Your task to perform on an android device: Go to accessibility settings Image 0: 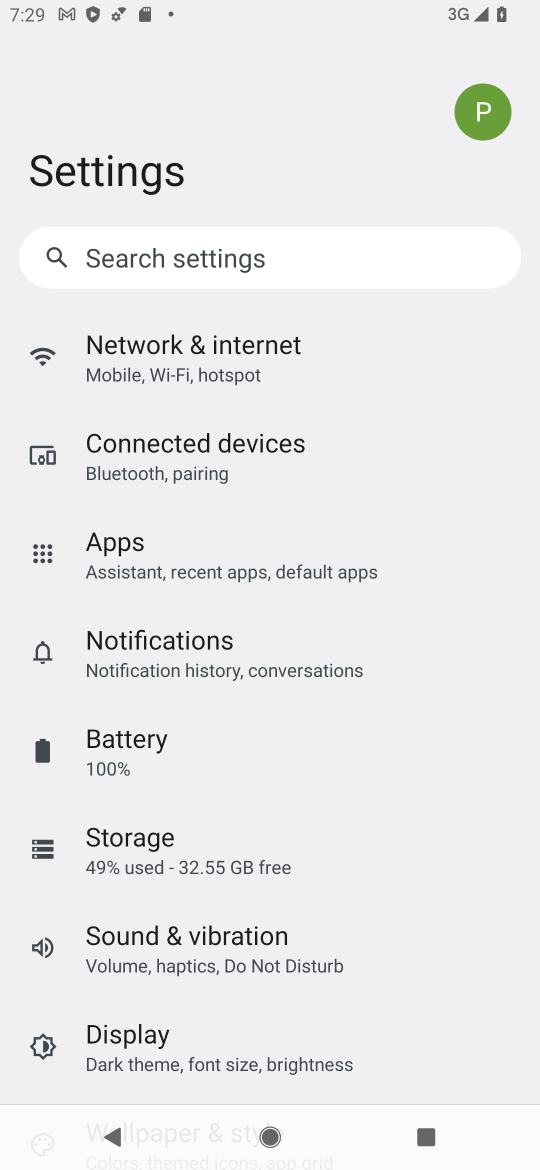
Step 0: drag from (168, 473) to (211, 509)
Your task to perform on an android device: Go to accessibility settings Image 1: 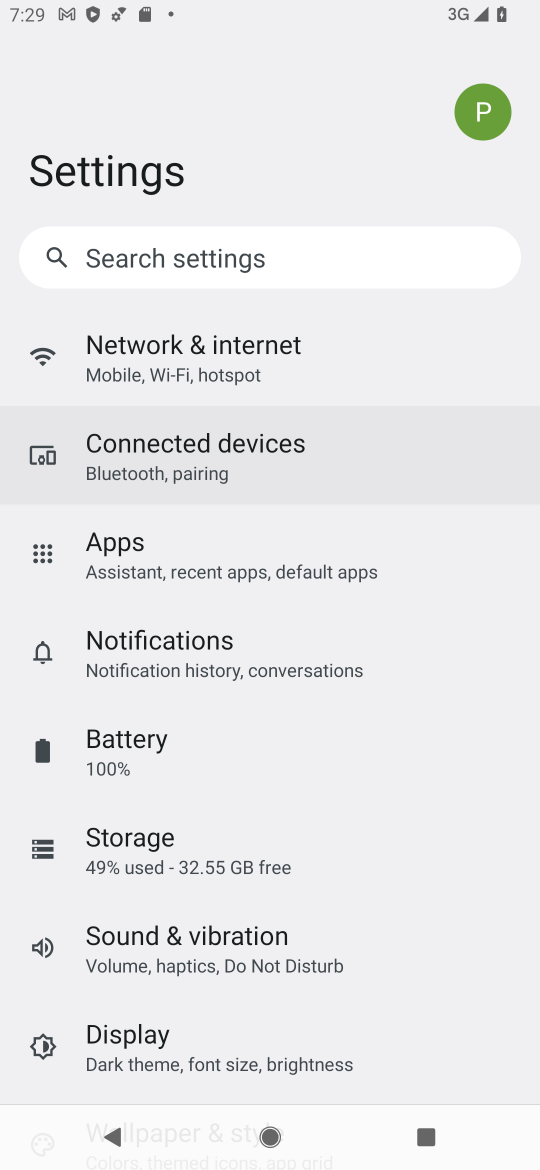
Step 1: click (168, 373)
Your task to perform on an android device: Go to accessibility settings Image 2: 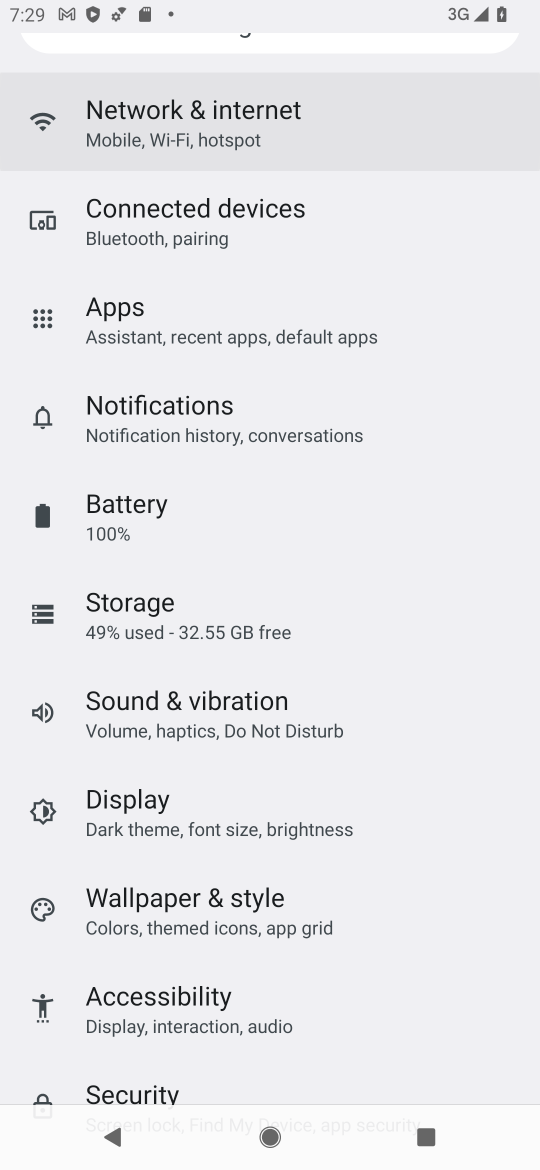
Step 2: drag from (182, 714) to (234, 397)
Your task to perform on an android device: Go to accessibility settings Image 3: 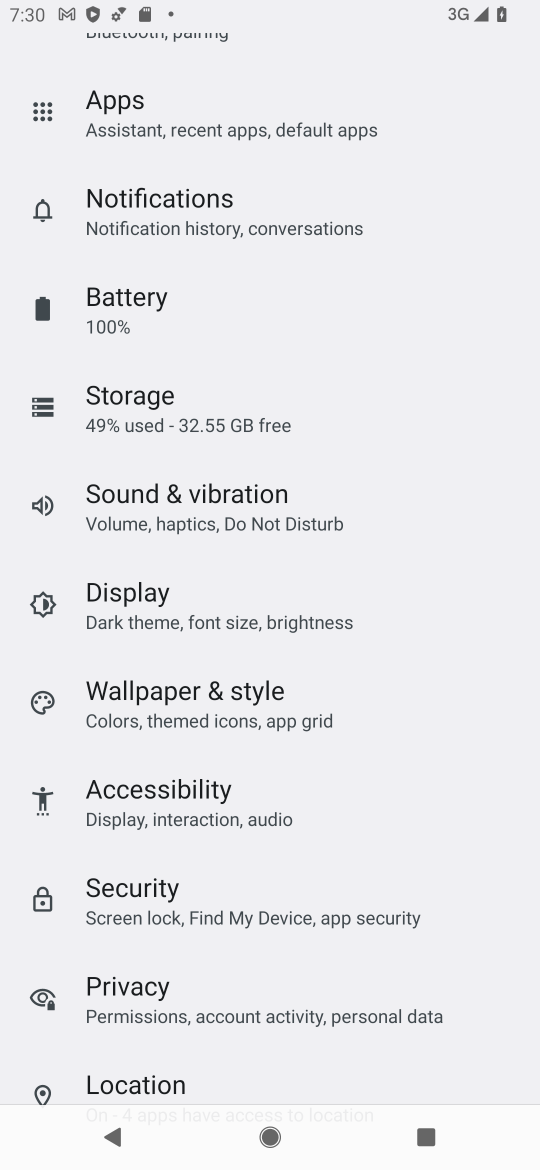
Step 3: click (250, 748)
Your task to perform on an android device: Go to accessibility settings Image 4: 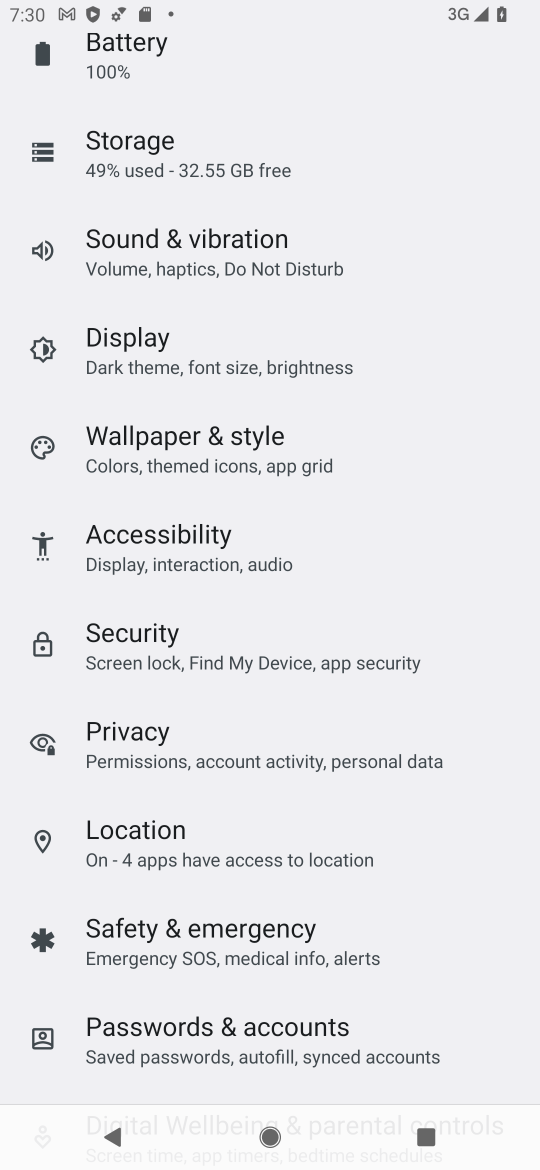
Step 4: click (221, 791)
Your task to perform on an android device: Go to accessibility settings Image 5: 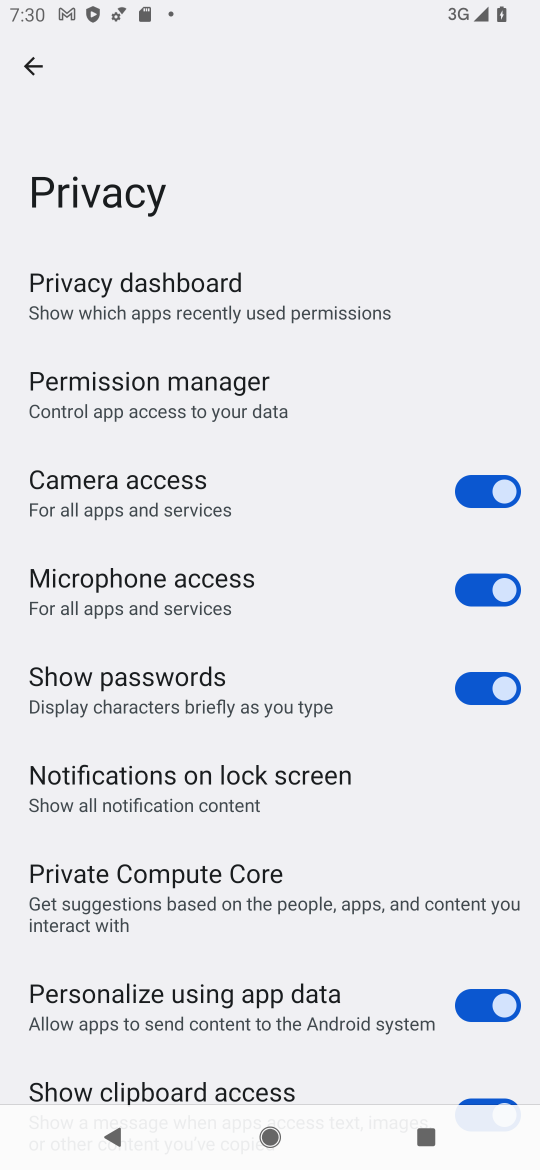
Step 5: drag from (120, 681) to (20, 305)
Your task to perform on an android device: Go to accessibility settings Image 6: 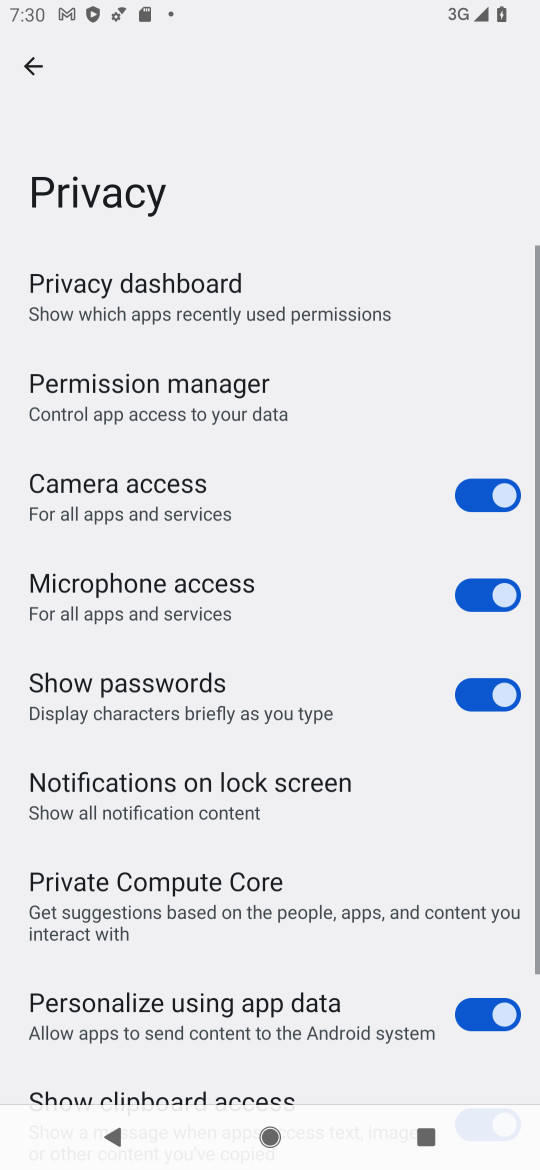
Step 6: click (31, 57)
Your task to perform on an android device: Go to accessibility settings Image 7: 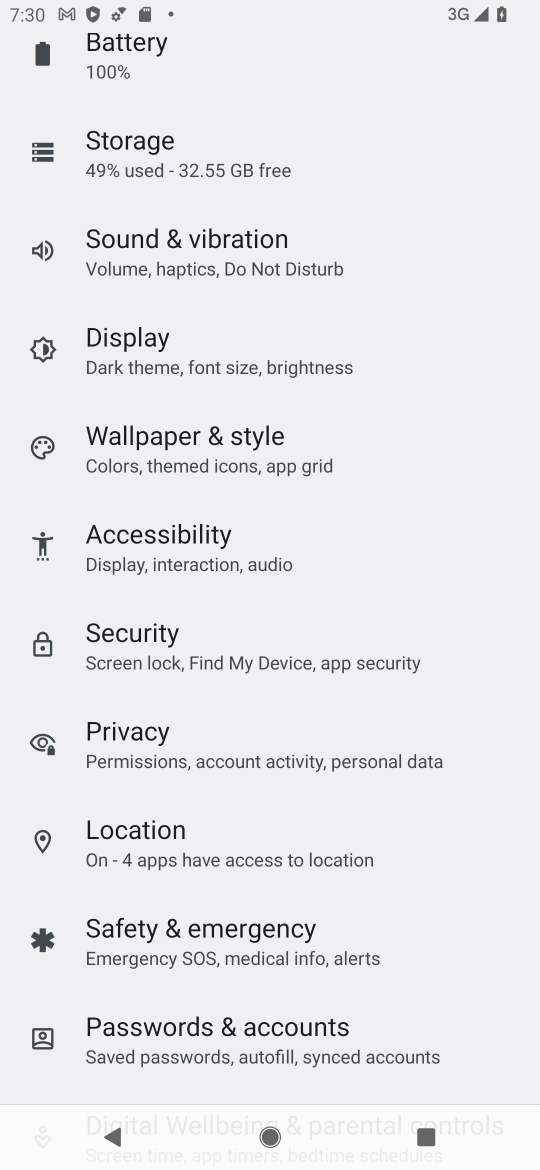
Step 7: click (155, 550)
Your task to perform on an android device: Go to accessibility settings Image 8: 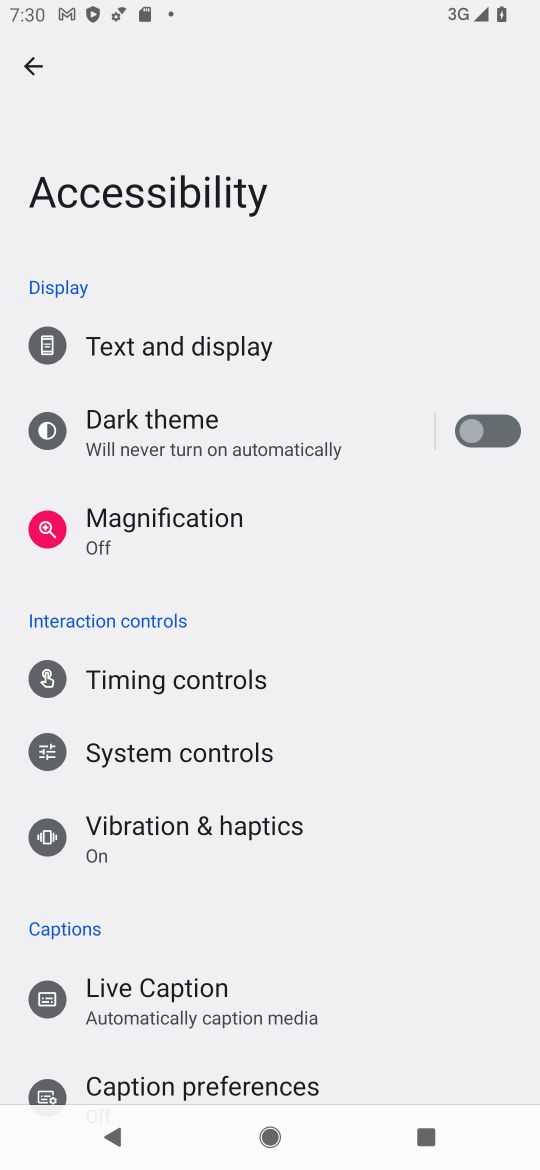
Step 8: task complete